Your task to perform on an android device: toggle javascript in the chrome app Image 0: 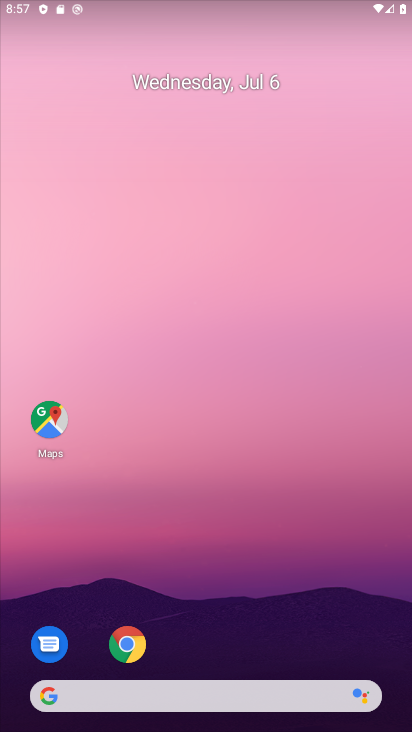
Step 0: drag from (202, 686) to (164, 35)
Your task to perform on an android device: toggle javascript in the chrome app Image 1: 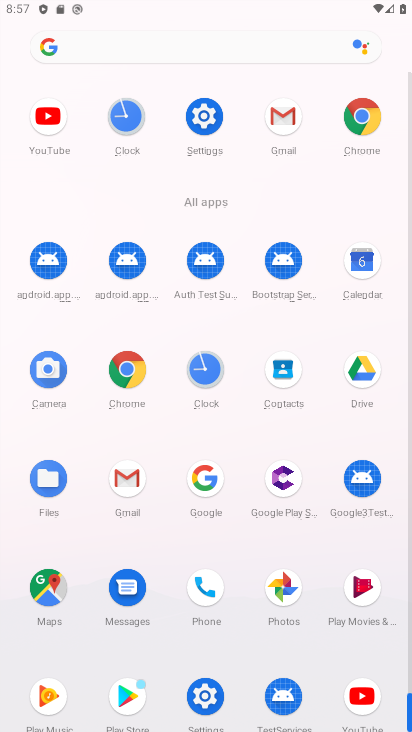
Step 1: click (362, 128)
Your task to perform on an android device: toggle javascript in the chrome app Image 2: 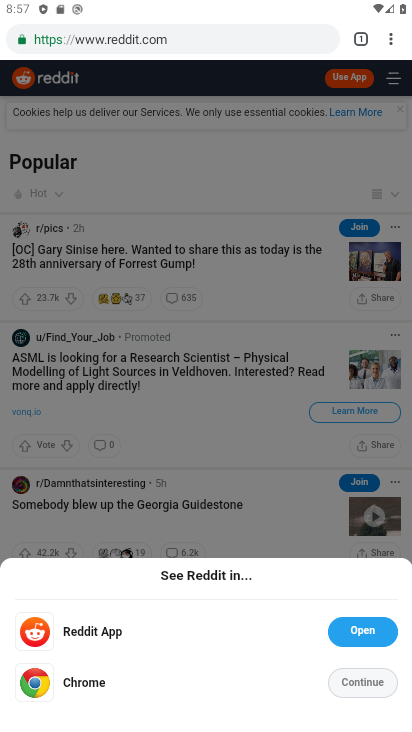
Step 2: click (395, 34)
Your task to perform on an android device: toggle javascript in the chrome app Image 3: 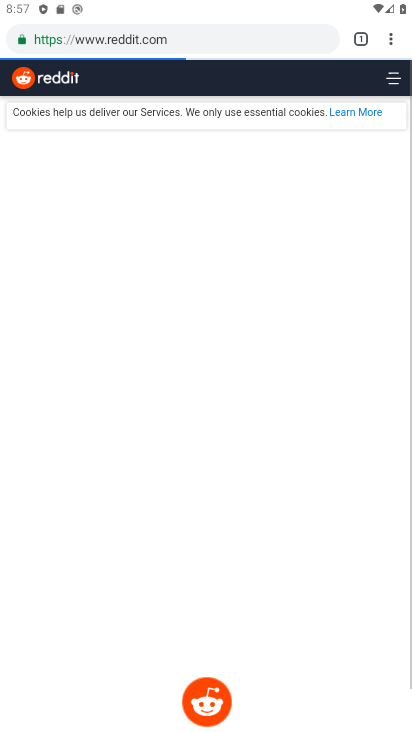
Step 3: click (397, 42)
Your task to perform on an android device: toggle javascript in the chrome app Image 4: 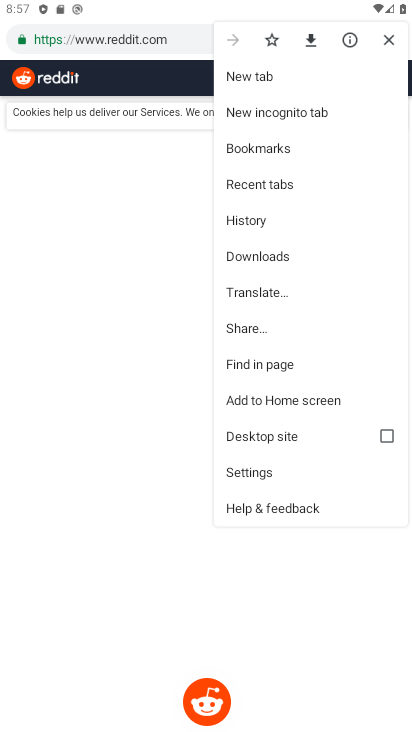
Step 4: click (284, 464)
Your task to perform on an android device: toggle javascript in the chrome app Image 5: 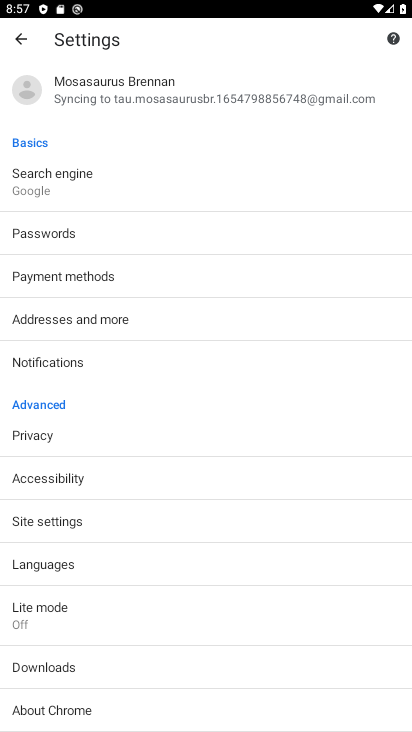
Step 5: drag from (95, 532) to (90, 360)
Your task to perform on an android device: toggle javascript in the chrome app Image 6: 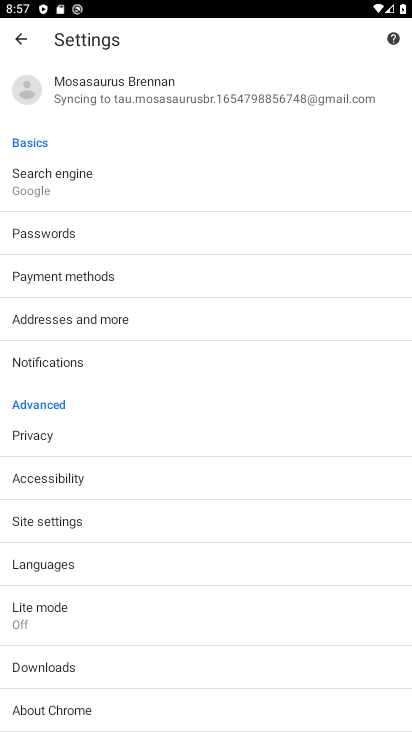
Step 6: click (43, 529)
Your task to perform on an android device: toggle javascript in the chrome app Image 7: 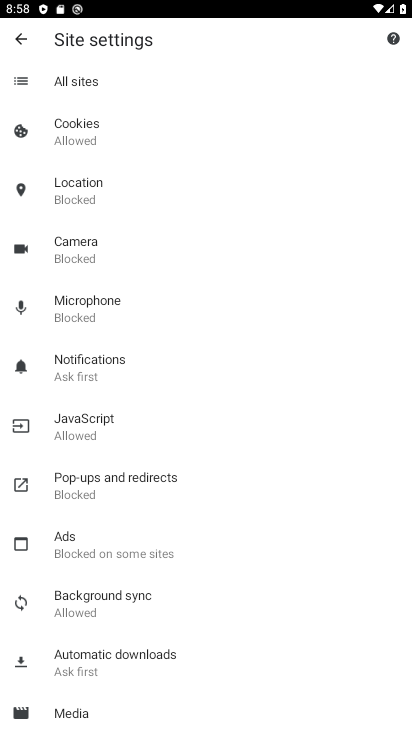
Step 7: click (123, 438)
Your task to perform on an android device: toggle javascript in the chrome app Image 8: 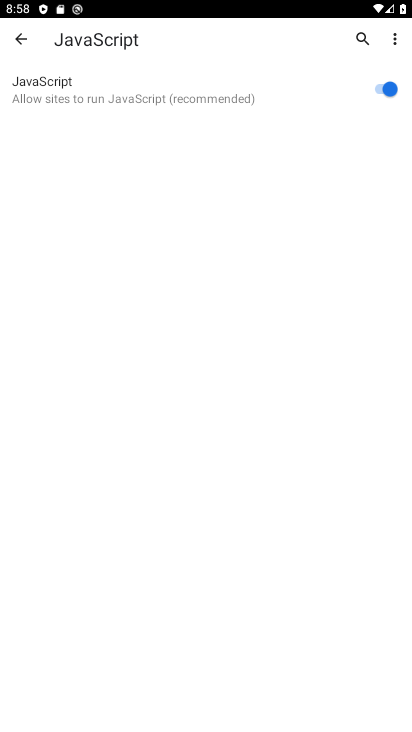
Step 8: drag from (175, 406) to (174, 246)
Your task to perform on an android device: toggle javascript in the chrome app Image 9: 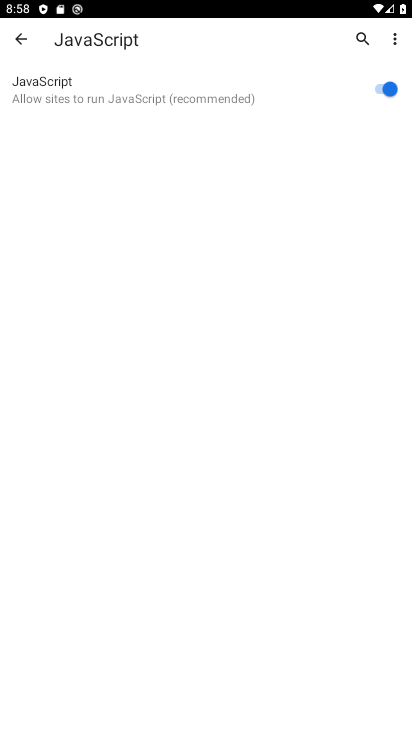
Step 9: click (372, 91)
Your task to perform on an android device: toggle javascript in the chrome app Image 10: 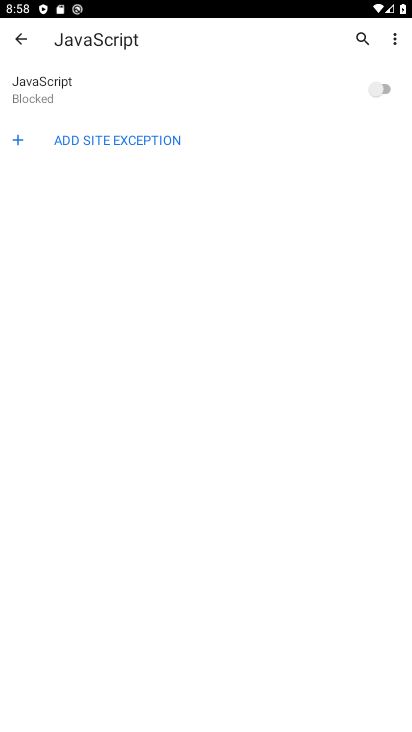
Step 10: task complete